Your task to perform on an android device: toggle airplane mode Image 0: 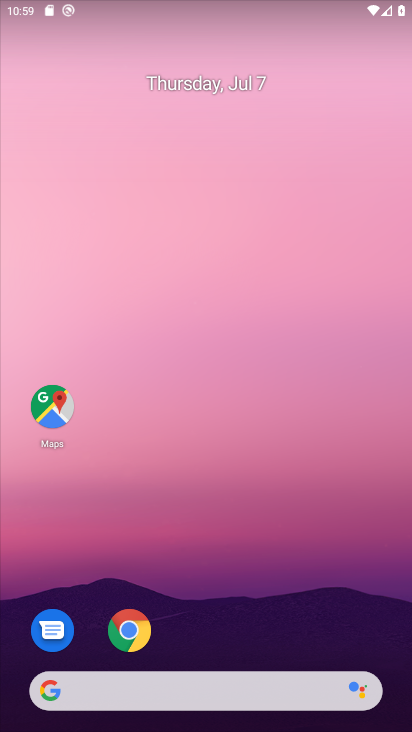
Step 0: drag from (246, 649) to (232, 288)
Your task to perform on an android device: toggle airplane mode Image 1: 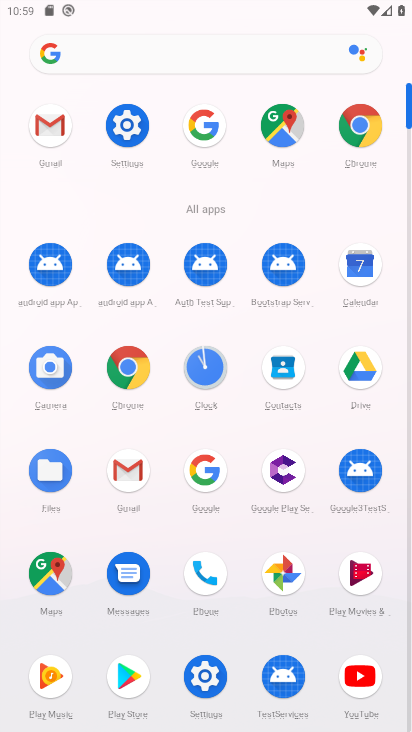
Step 1: click (123, 126)
Your task to perform on an android device: toggle airplane mode Image 2: 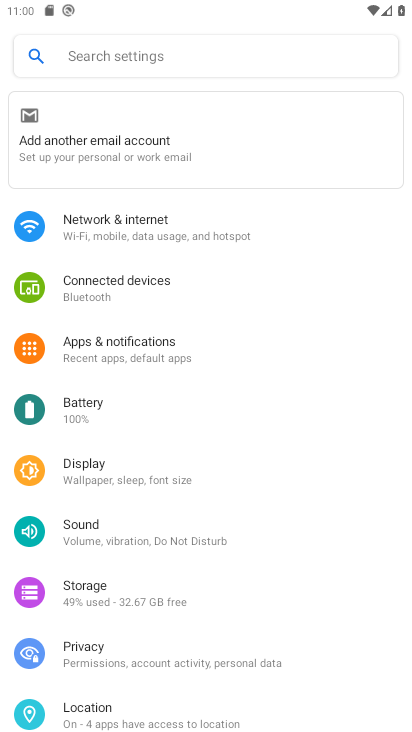
Step 2: click (141, 228)
Your task to perform on an android device: toggle airplane mode Image 3: 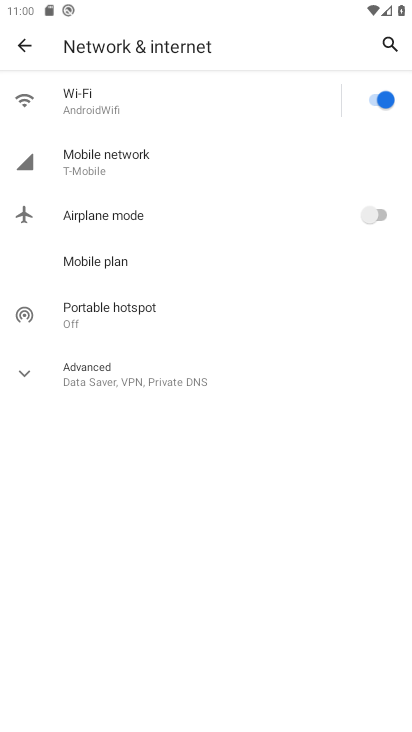
Step 3: click (375, 218)
Your task to perform on an android device: toggle airplane mode Image 4: 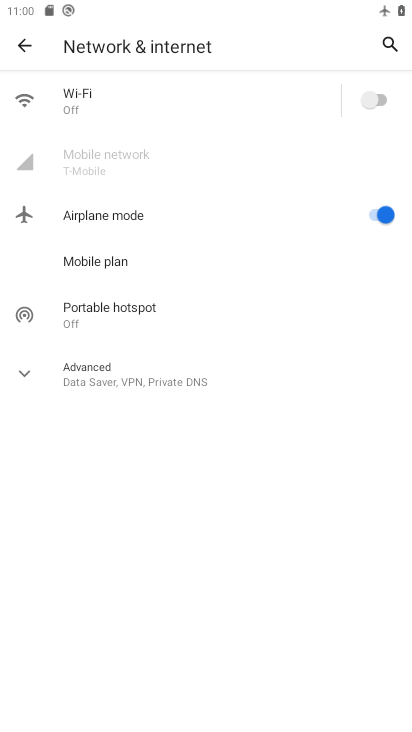
Step 4: task complete